Your task to perform on an android device: Go to notification settings Image 0: 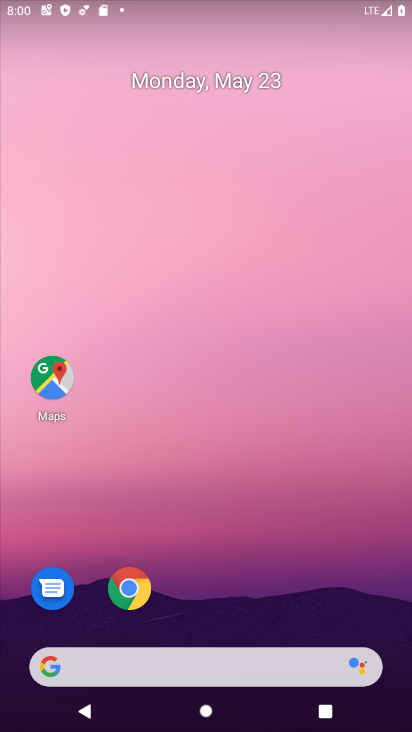
Step 0: drag from (394, 705) to (234, 17)
Your task to perform on an android device: Go to notification settings Image 1: 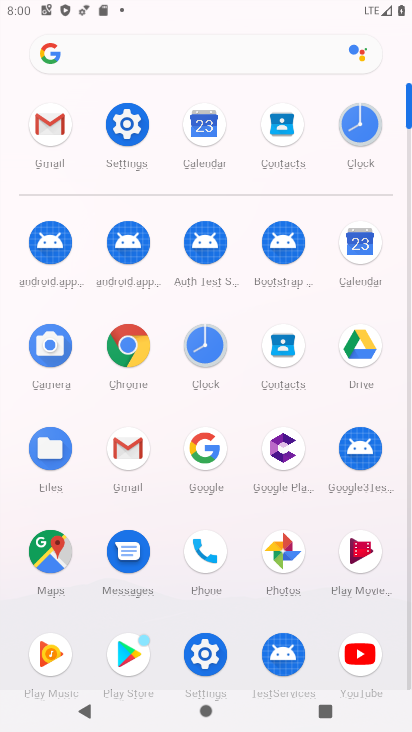
Step 1: click (130, 138)
Your task to perform on an android device: Go to notification settings Image 2: 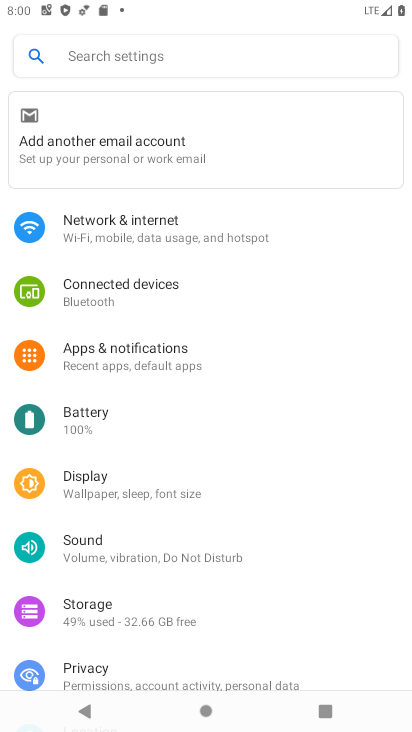
Step 2: drag from (317, 599) to (308, 345)
Your task to perform on an android device: Go to notification settings Image 3: 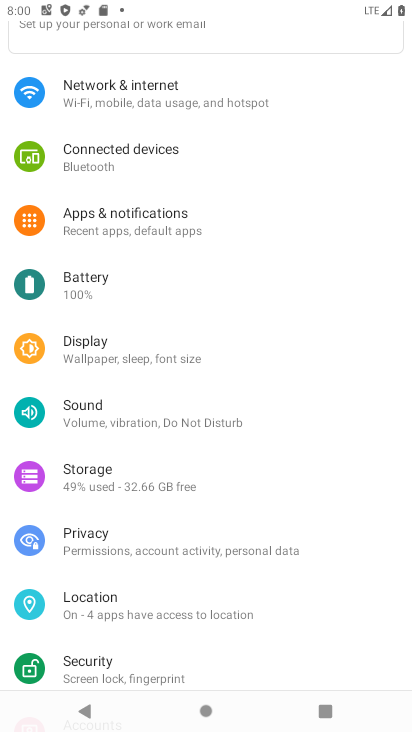
Step 3: click (89, 204)
Your task to perform on an android device: Go to notification settings Image 4: 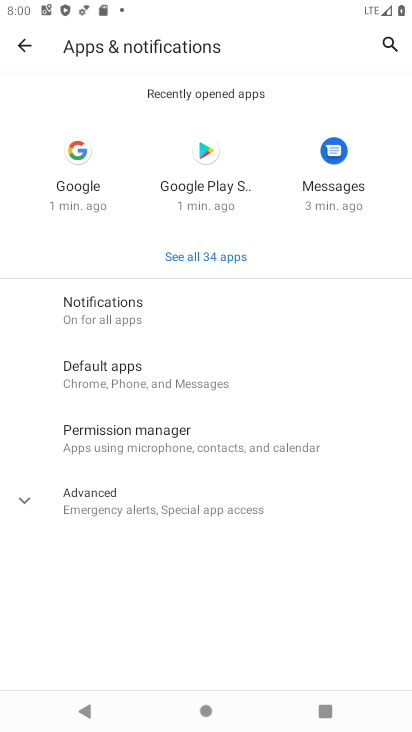
Step 4: click (136, 222)
Your task to perform on an android device: Go to notification settings Image 5: 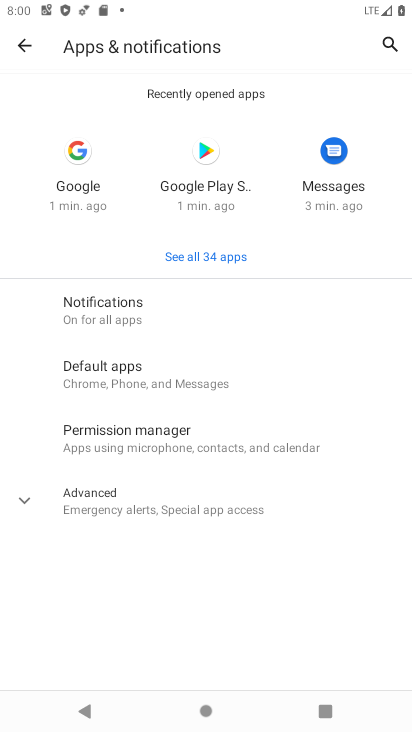
Step 5: click (101, 302)
Your task to perform on an android device: Go to notification settings Image 6: 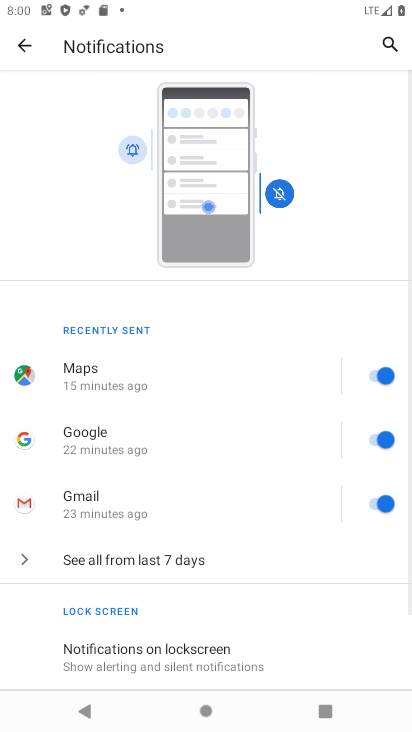
Step 6: drag from (277, 662) to (256, 231)
Your task to perform on an android device: Go to notification settings Image 7: 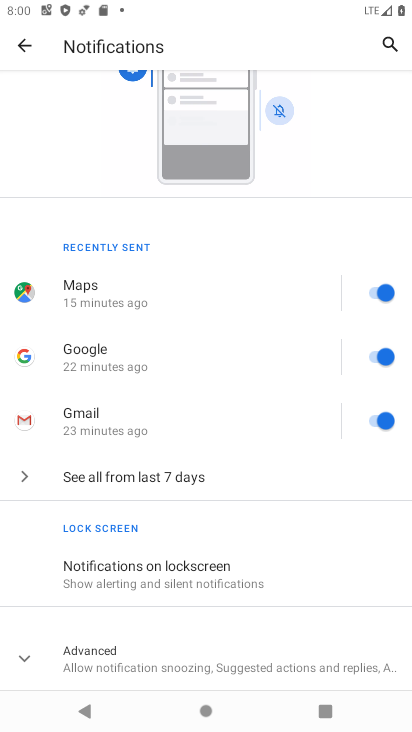
Step 7: click (29, 652)
Your task to perform on an android device: Go to notification settings Image 8: 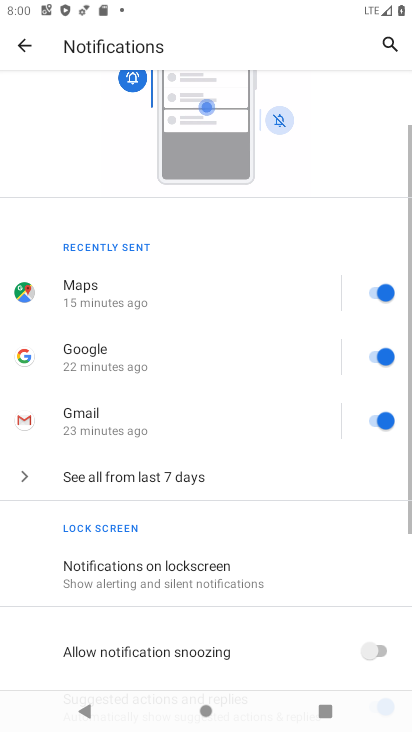
Step 8: task complete